Your task to perform on an android device: Check the news Image 0: 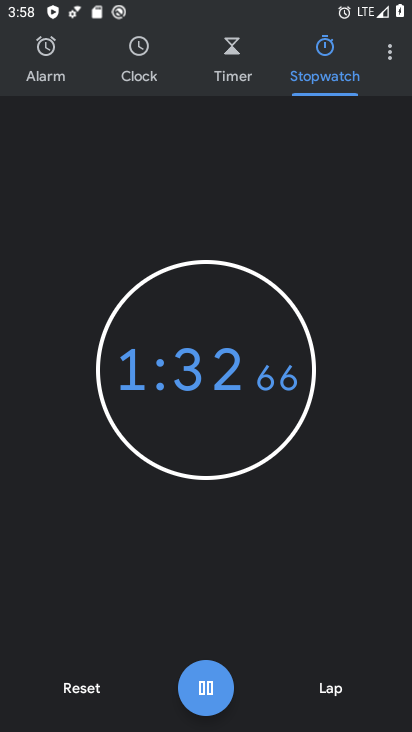
Step 0: press back button
Your task to perform on an android device: Check the news Image 1: 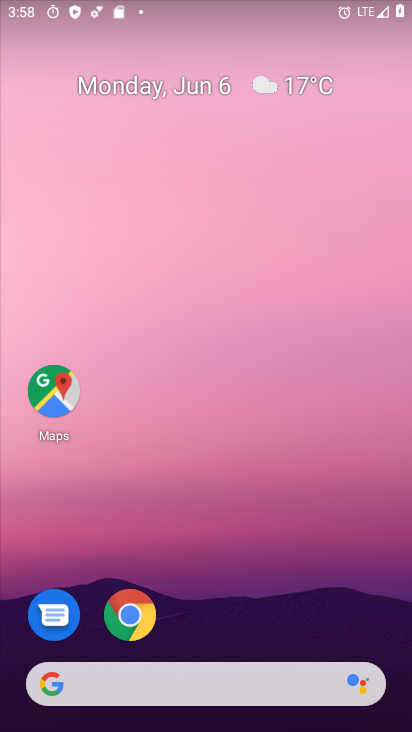
Step 1: drag from (251, 592) to (212, 26)
Your task to perform on an android device: Check the news Image 2: 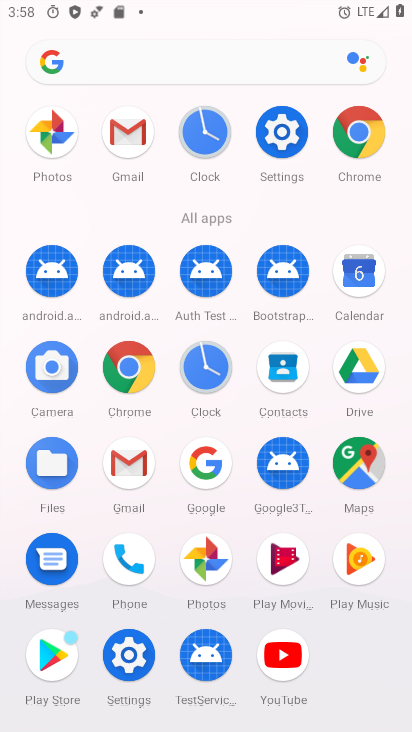
Step 2: click (128, 361)
Your task to perform on an android device: Check the news Image 3: 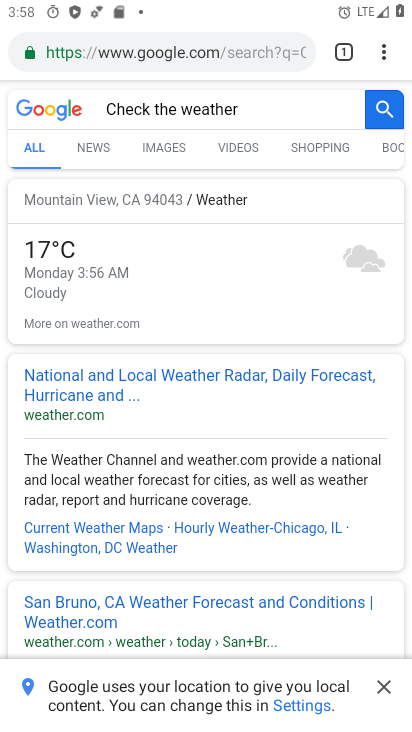
Step 3: click (220, 48)
Your task to perform on an android device: Check the news Image 4: 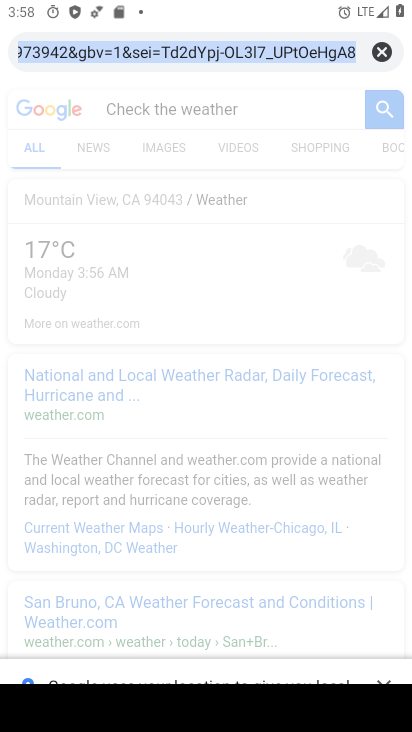
Step 4: click (383, 53)
Your task to perform on an android device: Check the news Image 5: 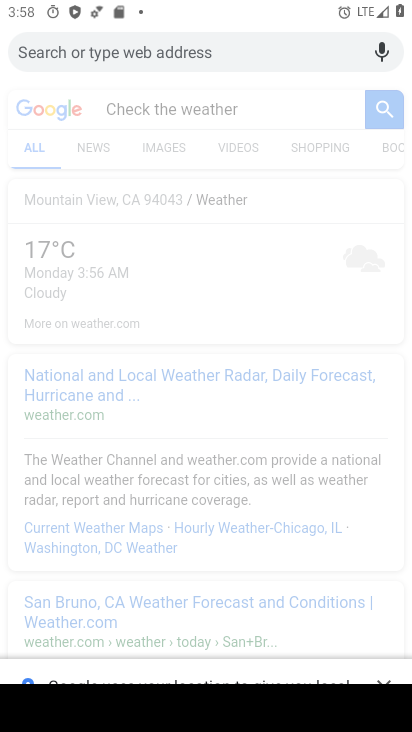
Step 5: type "Check the news"
Your task to perform on an android device: Check the news Image 6: 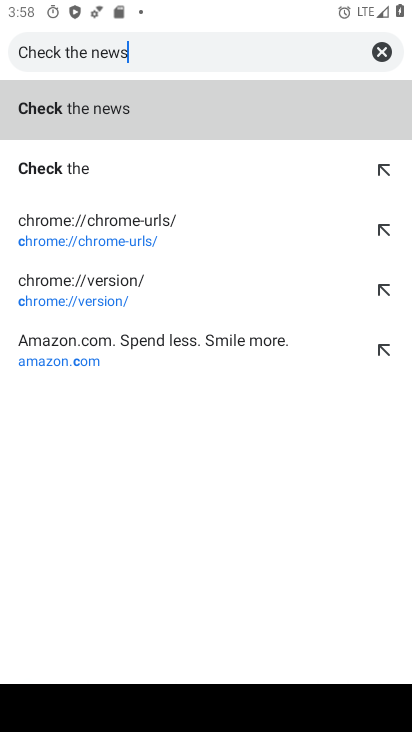
Step 6: type ""
Your task to perform on an android device: Check the news Image 7: 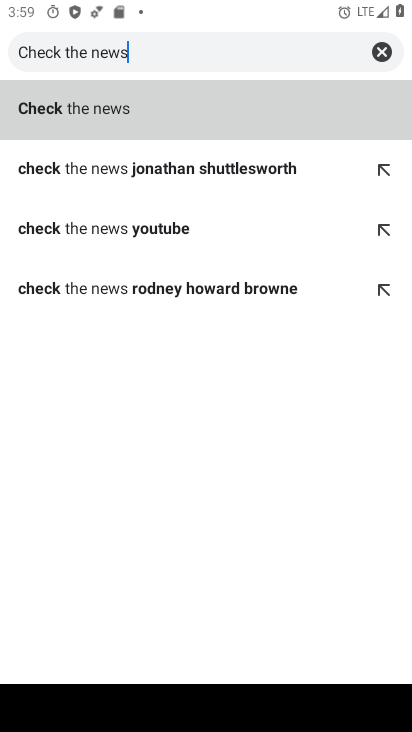
Step 7: click (122, 121)
Your task to perform on an android device: Check the news Image 8: 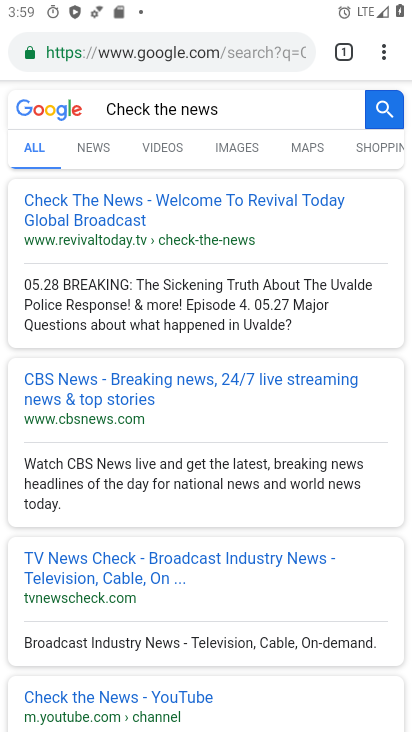
Step 8: click (107, 143)
Your task to perform on an android device: Check the news Image 9: 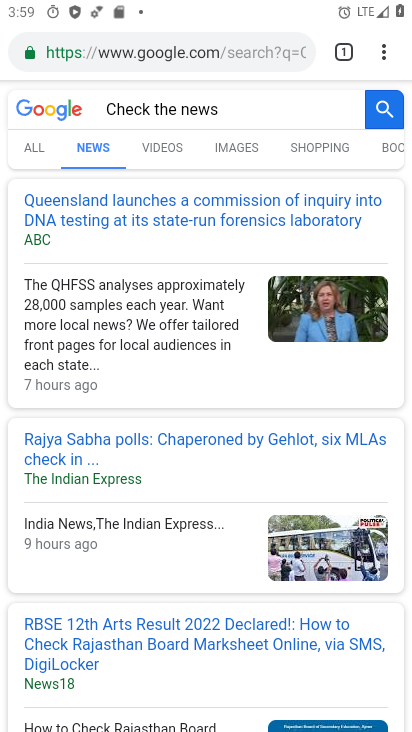
Step 9: task complete